Your task to perform on an android device: turn off data saver in the chrome app Image 0: 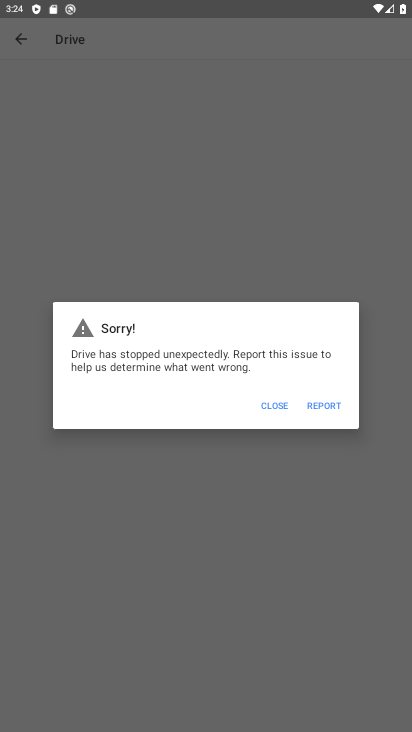
Step 0: press home button
Your task to perform on an android device: turn off data saver in the chrome app Image 1: 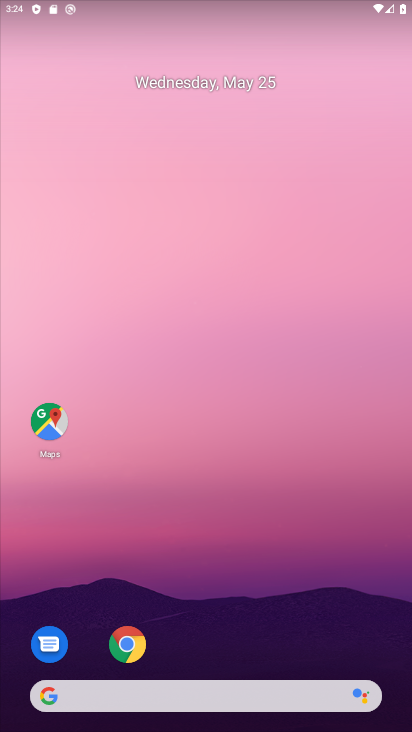
Step 1: click (129, 645)
Your task to perform on an android device: turn off data saver in the chrome app Image 2: 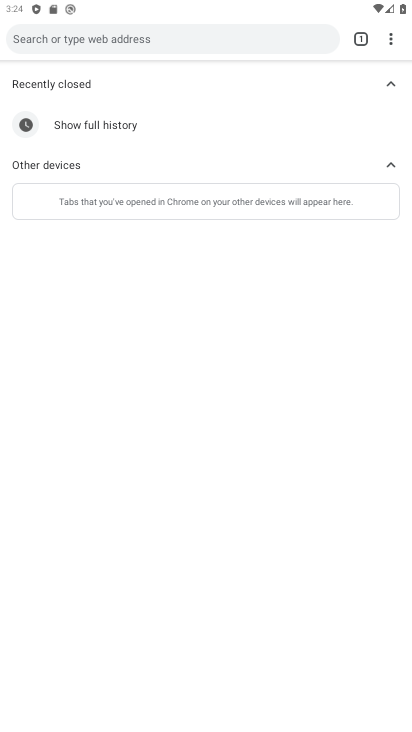
Step 2: click (392, 43)
Your task to perform on an android device: turn off data saver in the chrome app Image 3: 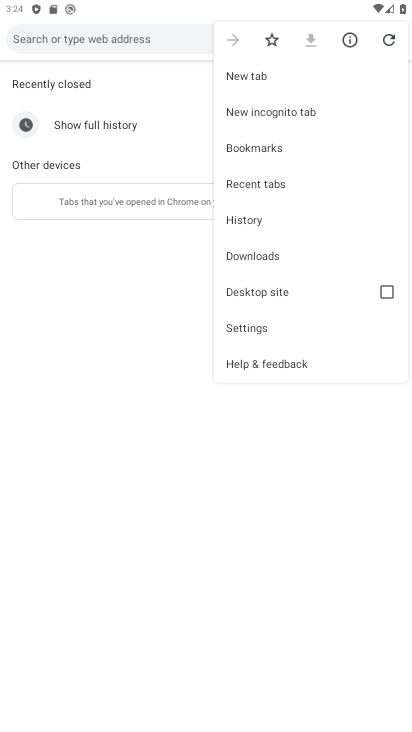
Step 3: click (247, 330)
Your task to perform on an android device: turn off data saver in the chrome app Image 4: 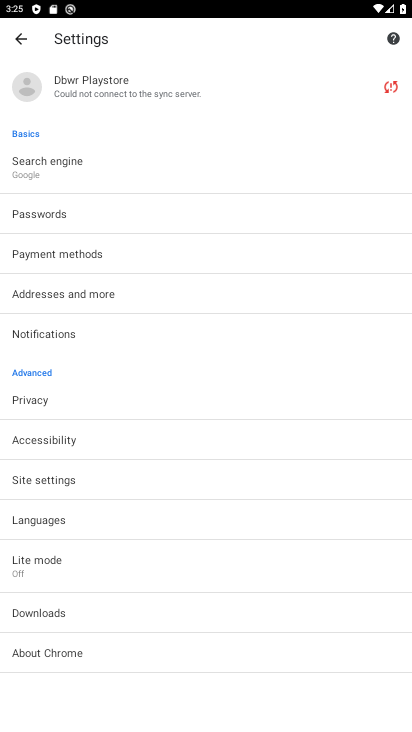
Step 4: click (28, 566)
Your task to perform on an android device: turn off data saver in the chrome app Image 5: 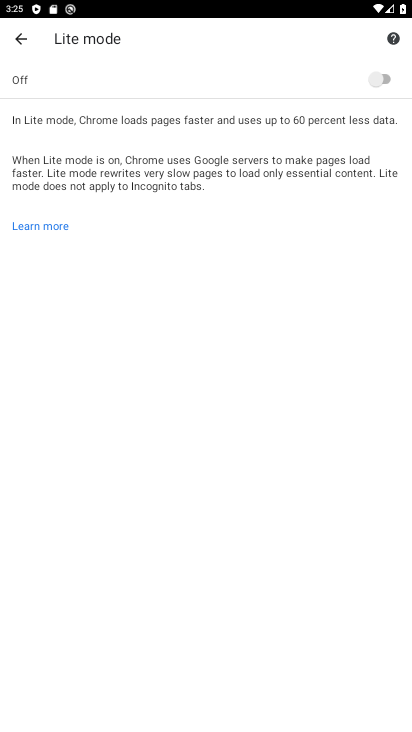
Step 5: task complete